Your task to perform on an android device: turn on translation in the chrome app Image 0: 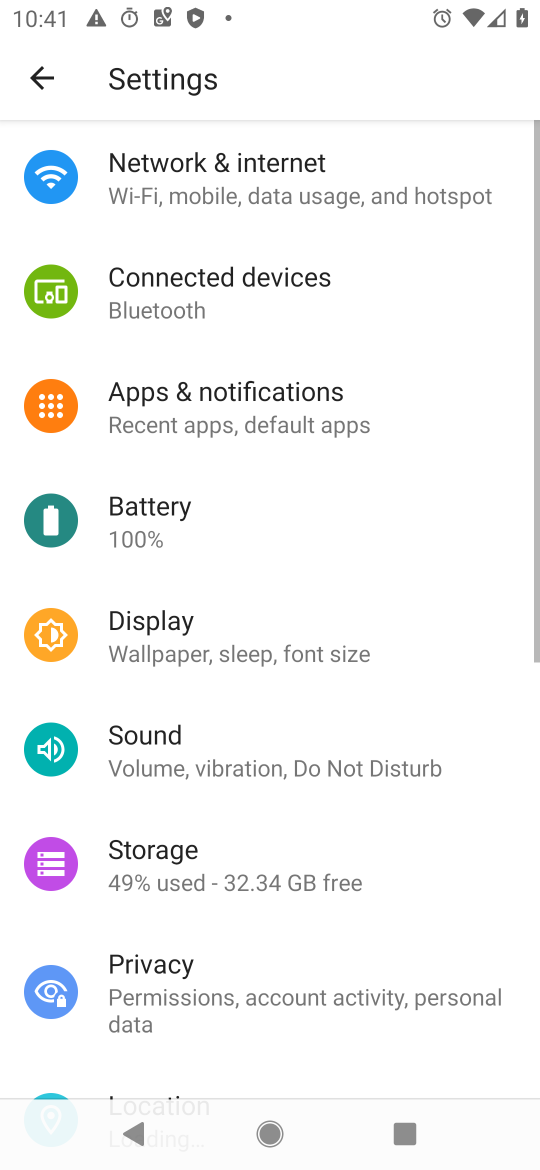
Step 0: press home button
Your task to perform on an android device: turn on translation in the chrome app Image 1: 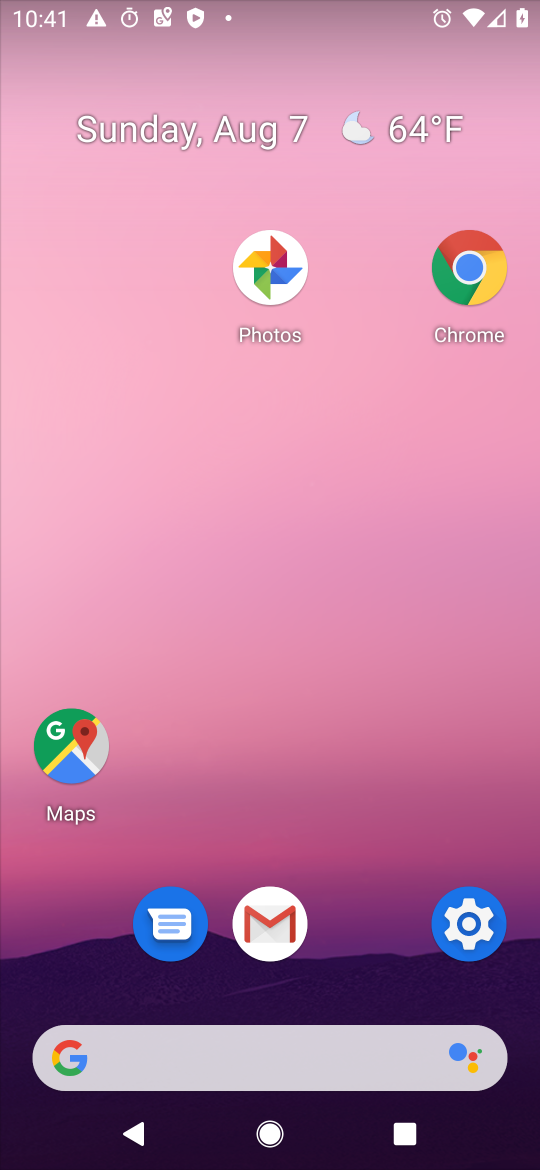
Step 1: click (469, 282)
Your task to perform on an android device: turn on translation in the chrome app Image 2: 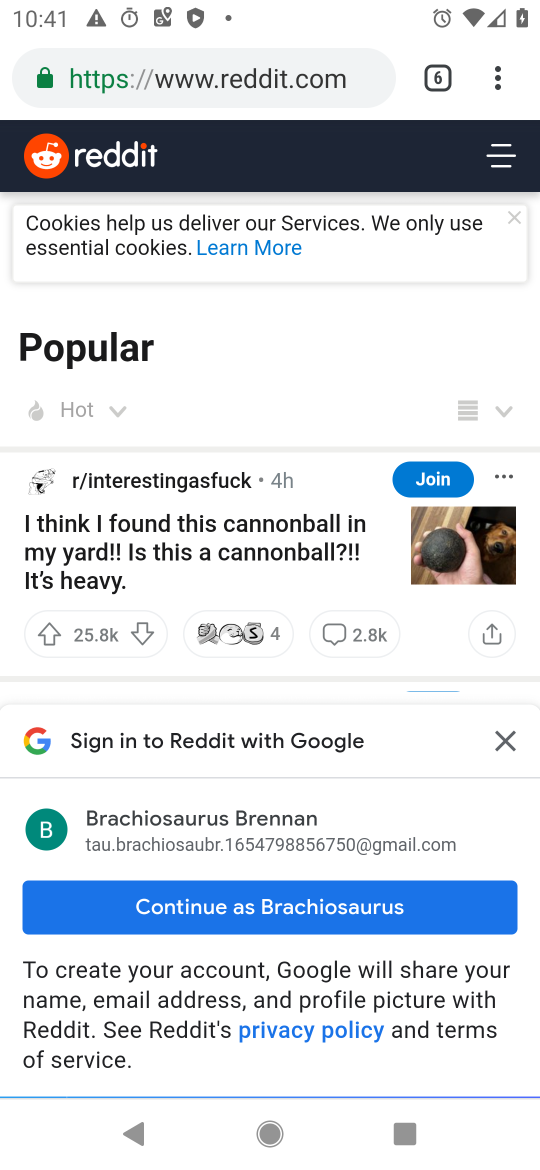
Step 2: click (499, 81)
Your task to perform on an android device: turn on translation in the chrome app Image 3: 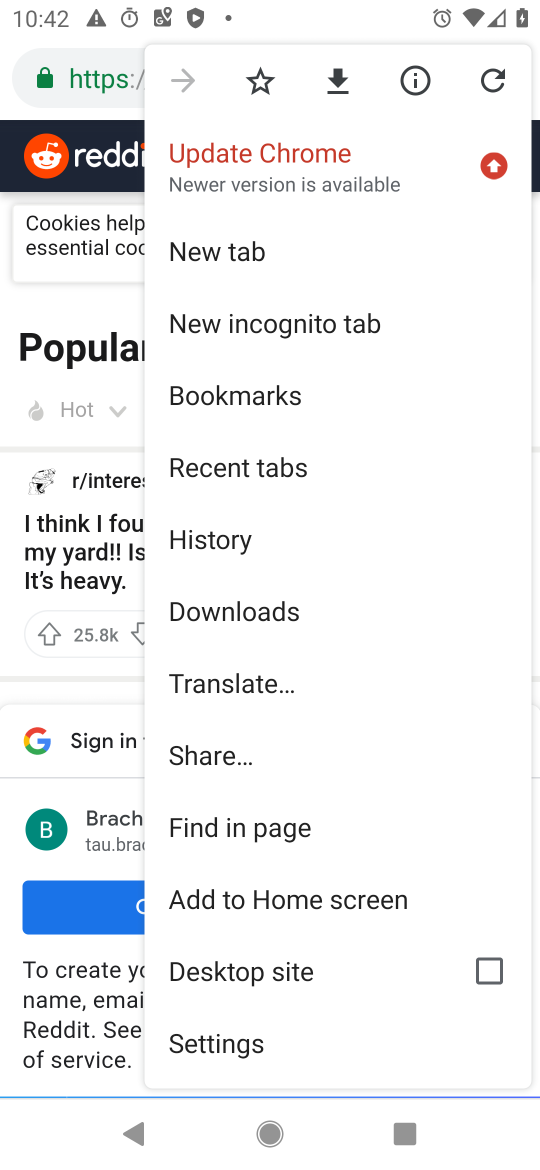
Step 3: click (242, 1039)
Your task to perform on an android device: turn on translation in the chrome app Image 4: 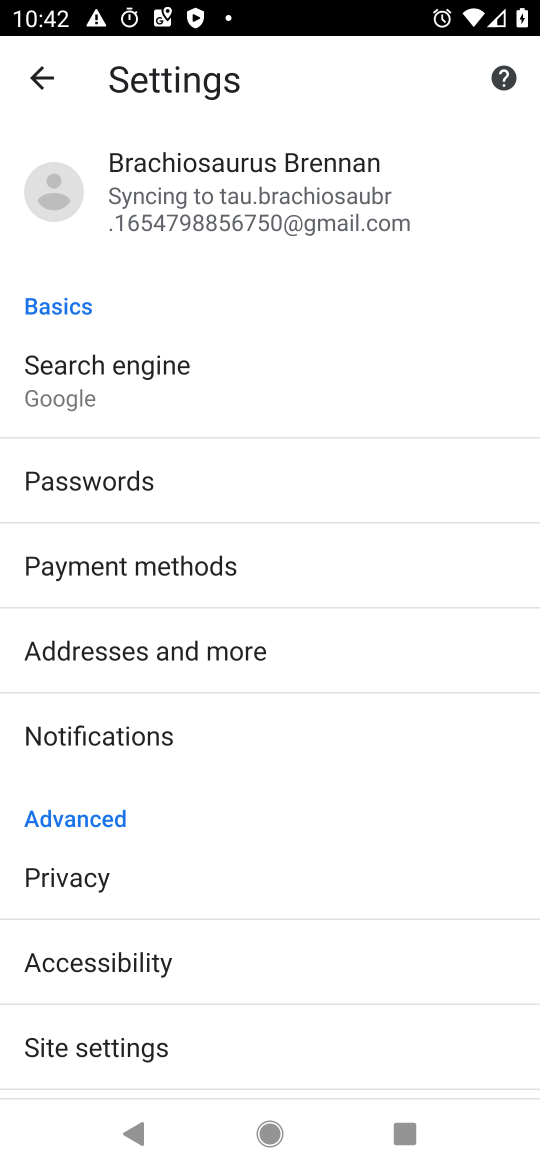
Step 4: drag from (129, 984) to (142, 823)
Your task to perform on an android device: turn on translation in the chrome app Image 5: 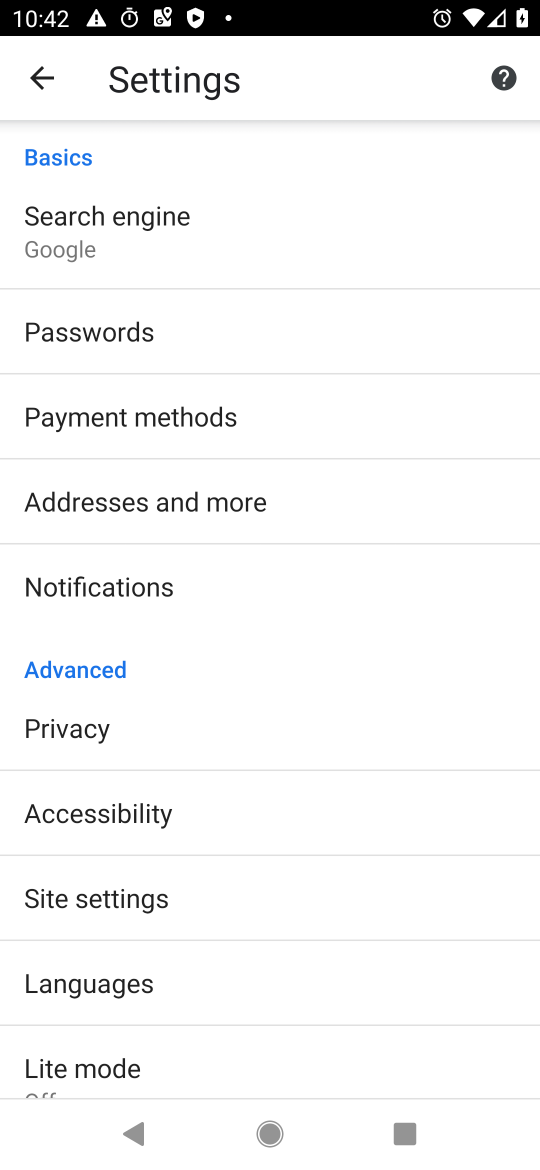
Step 5: click (98, 989)
Your task to perform on an android device: turn on translation in the chrome app Image 6: 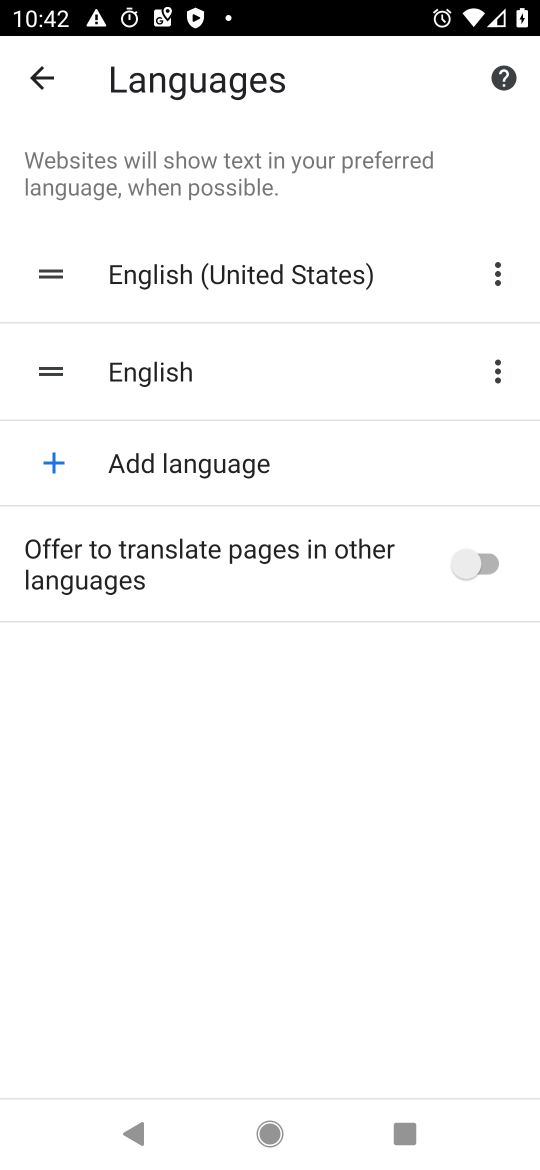
Step 6: click (423, 570)
Your task to perform on an android device: turn on translation in the chrome app Image 7: 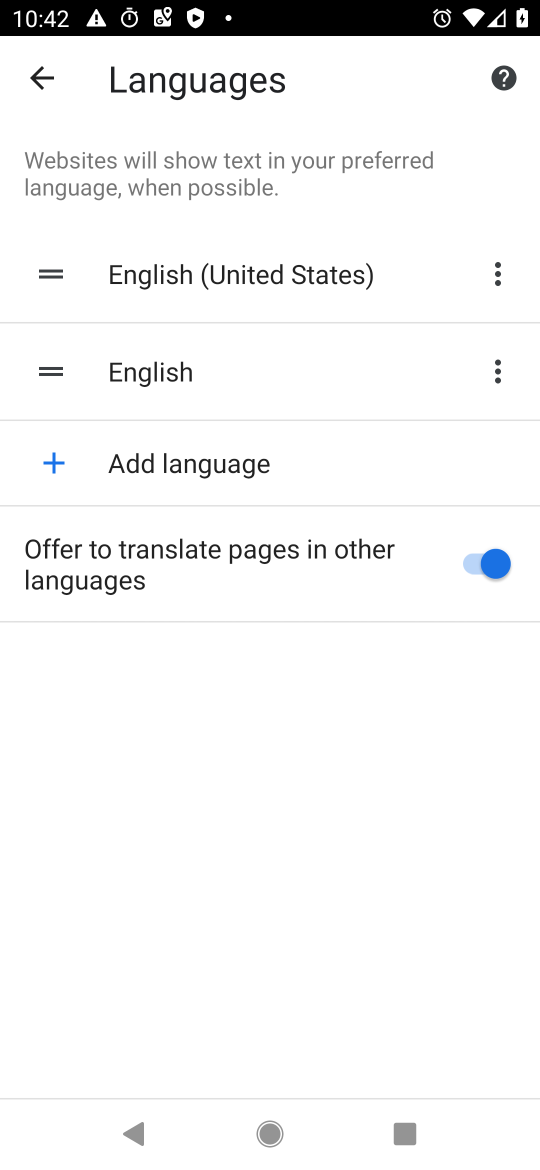
Step 7: task complete